Your task to perform on an android device: Toggle the flashlight Image 0: 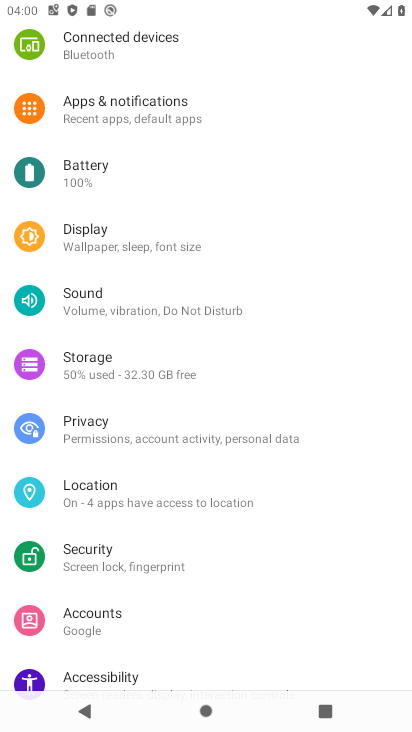
Step 0: press home button
Your task to perform on an android device: Toggle the flashlight Image 1: 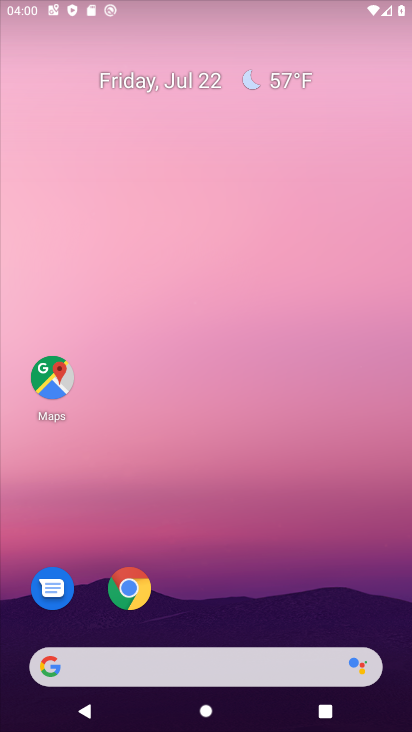
Step 1: drag from (229, 570) to (209, 17)
Your task to perform on an android device: Toggle the flashlight Image 2: 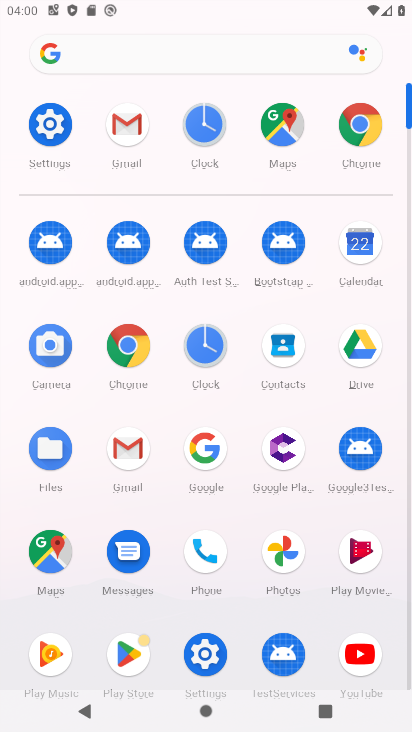
Step 2: click (213, 647)
Your task to perform on an android device: Toggle the flashlight Image 3: 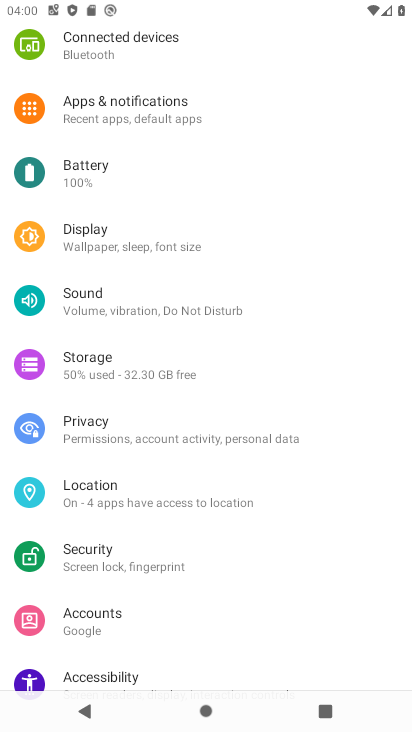
Step 3: task complete